Your task to perform on an android device: Open the calendar app, open the side menu, and click the "Day" option Image 0: 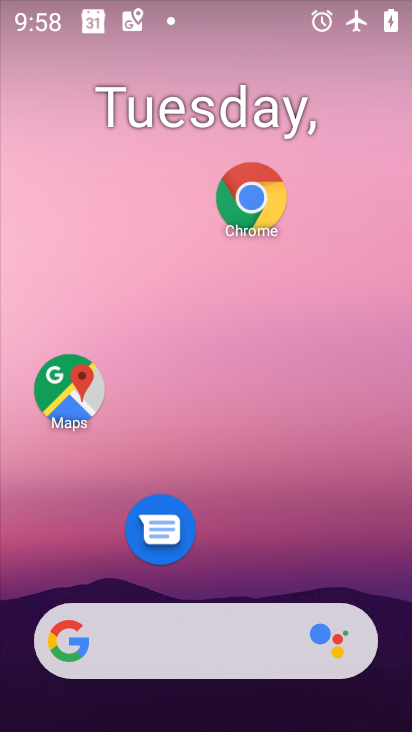
Step 0: drag from (326, 548) to (264, 63)
Your task to perform on an android device: Open the calendar app, open the side menu, and click the "Day" option Image 1: 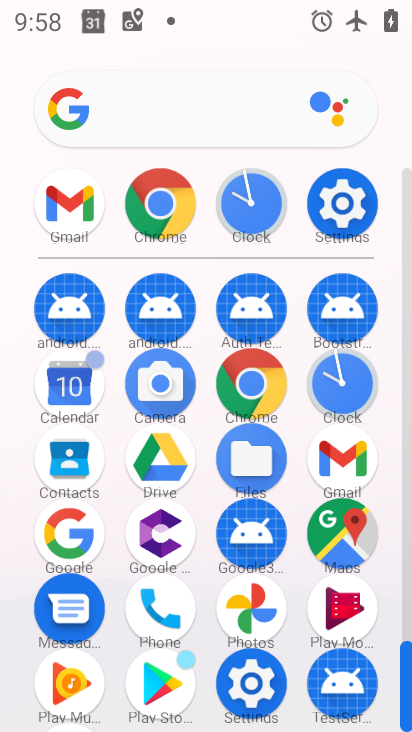
Step 1: click (339, 210)
Your task to perform on an android device: Open the calendar app, open the side menu, and click the "Day" option Image 2: 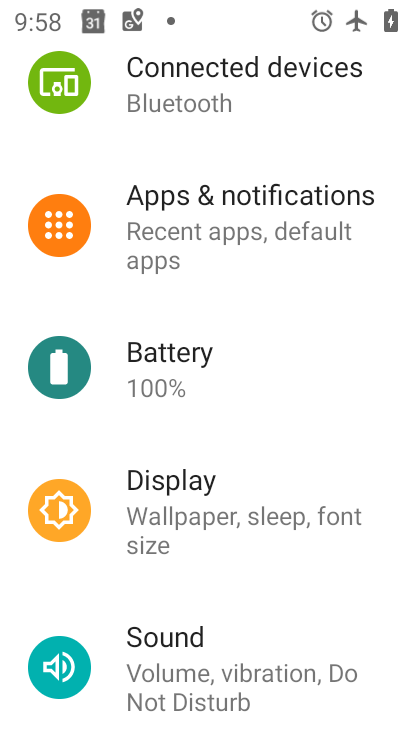
Step 2: press home button
Your task to perform on an android device: Open the calendar app, open the side menu, and click the "Day" option Image 3: 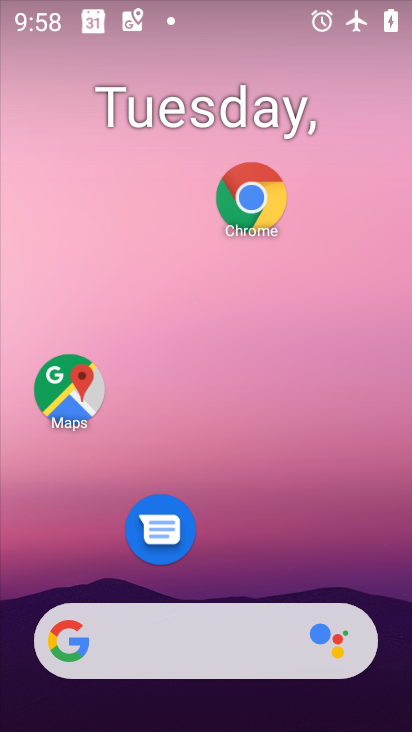
Step 3: drag from (316, 545) to (309, 318)
Your task to perform on an android device: Open the calendar app, open the side menu, and click the "Day" option Image 4: 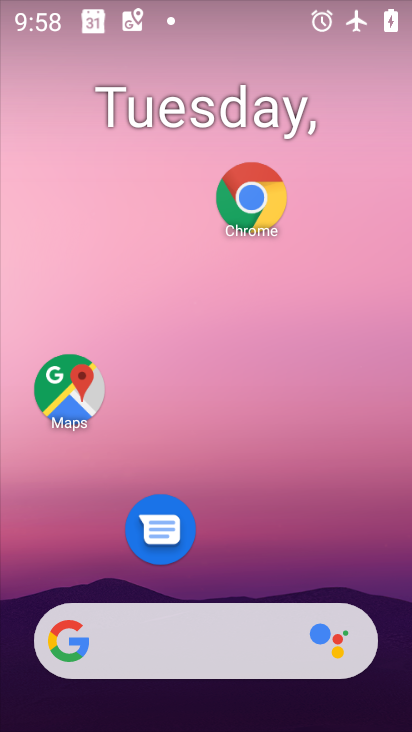
Step 4: drag from (280, 562) to (320, 22)
Your task to perform on an android device: Open the calendar app, open the side menu, and click the "Day" option Image 5: 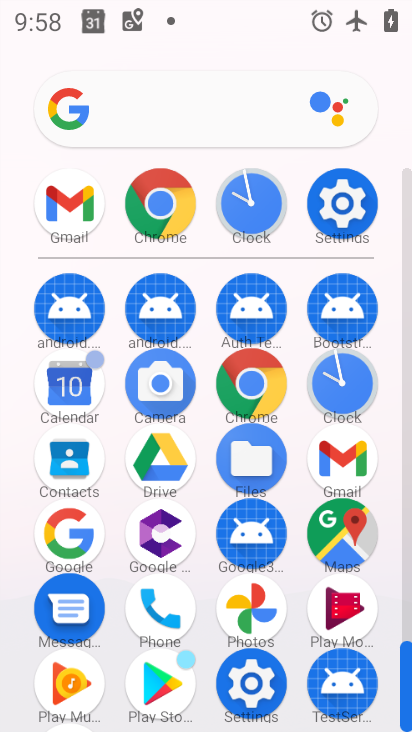
Step 5: click (71, 413)
Your task to perform on an android device: Open the calendar app, open the side menu, and click the "Day" option Image 6: 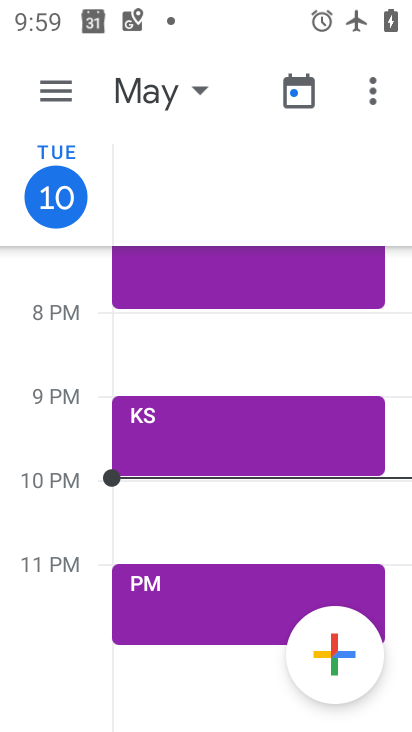
Step 6: click (65, 78)
Your task to perform on an android device: Open the calendar app, open the side menu, and click the "Day" option Image 7: 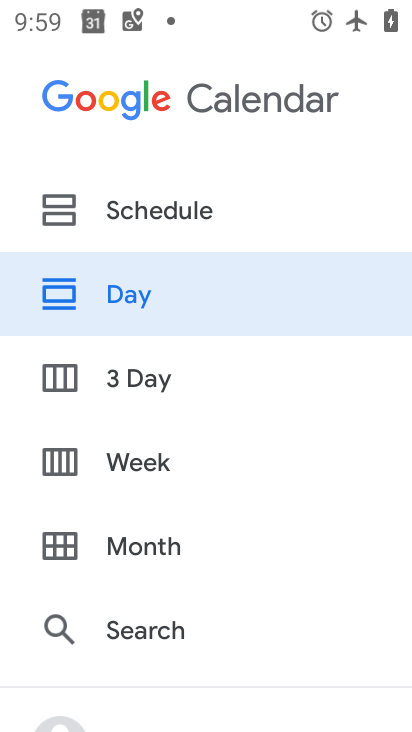
Step 7: task complete